Your task to perform on an android device: install app "Gmail" Image 0: 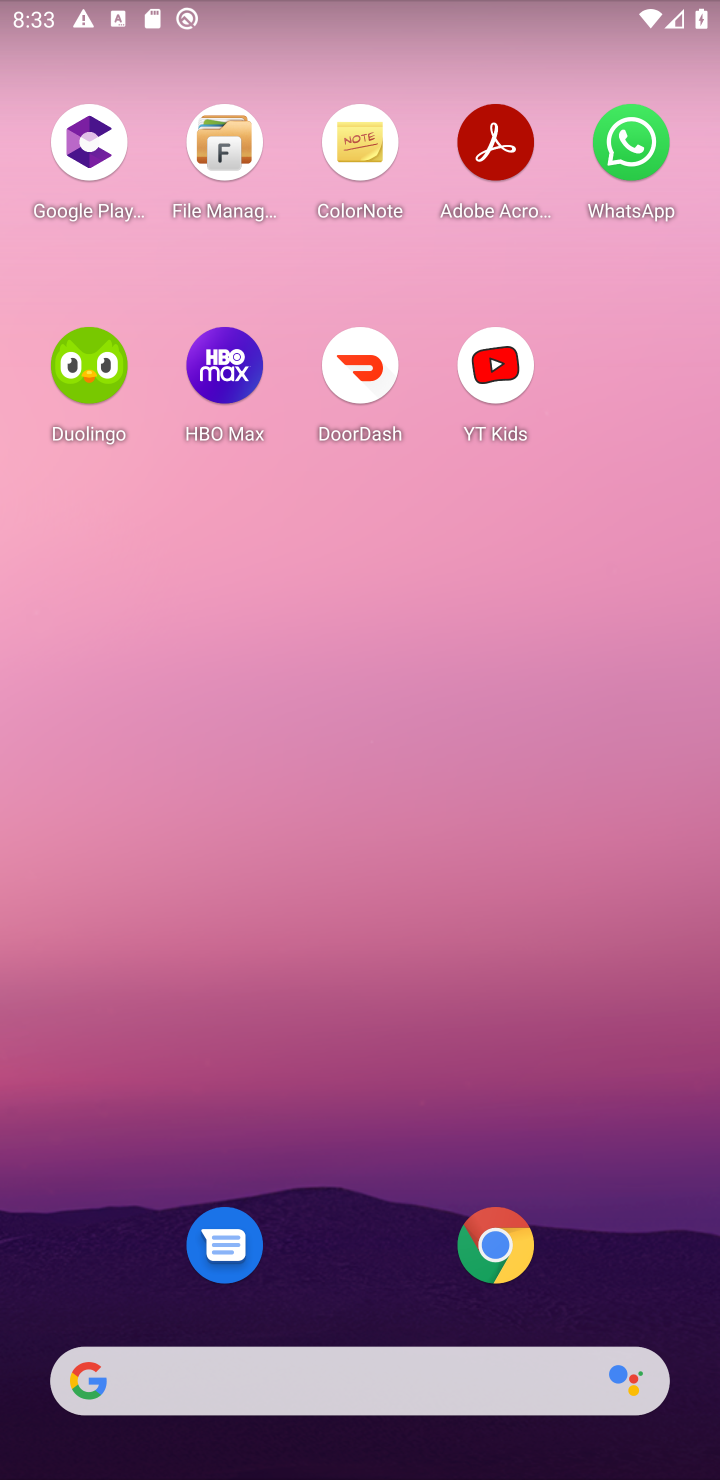
Step 0: drag from (543, 997) to (572, 1)
Your task to perform on an android device: install app "Gmail" Image 1: 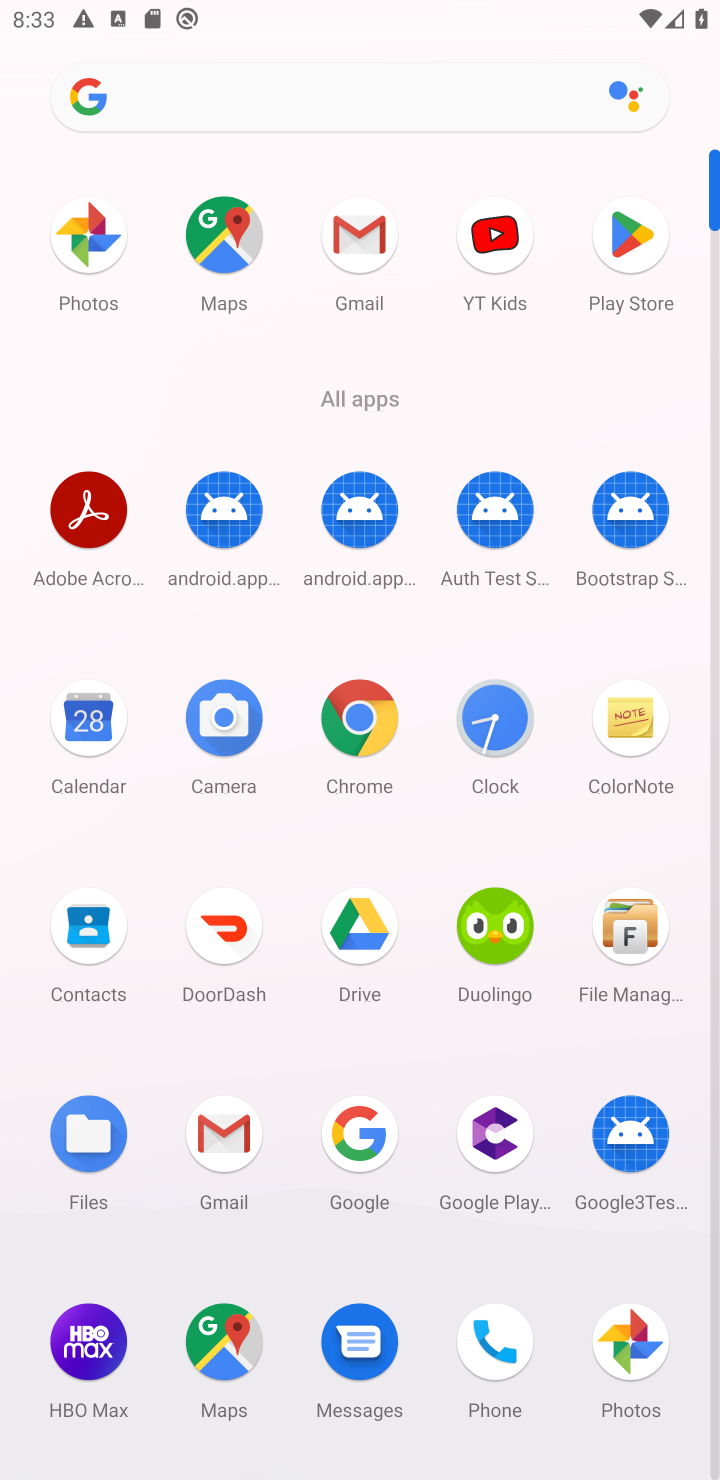
Step 1: click (637, 245)
Your task to perform on an android device: install app "Gmail" Image 2: 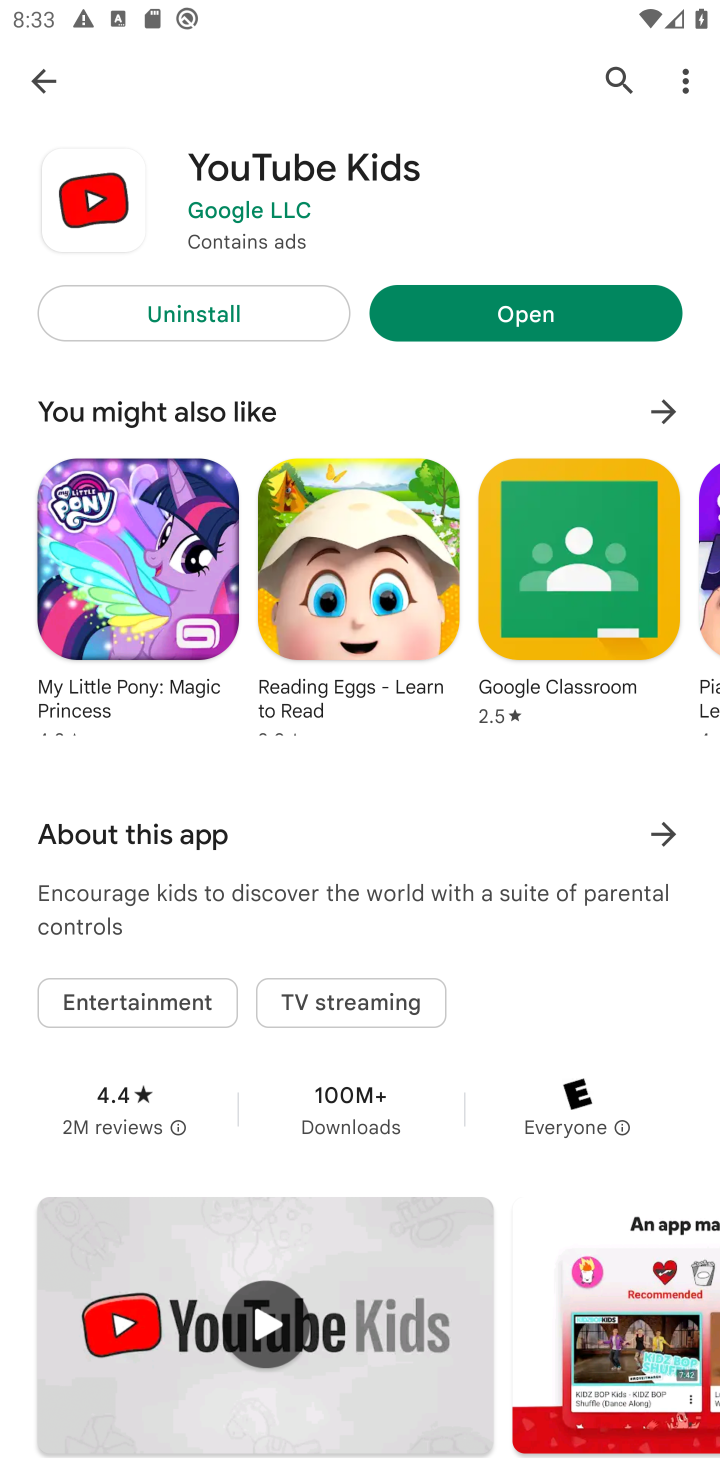
Step 2: click (615, 72)
Your task to perform on an android device: install app "Gmail" Image 3: 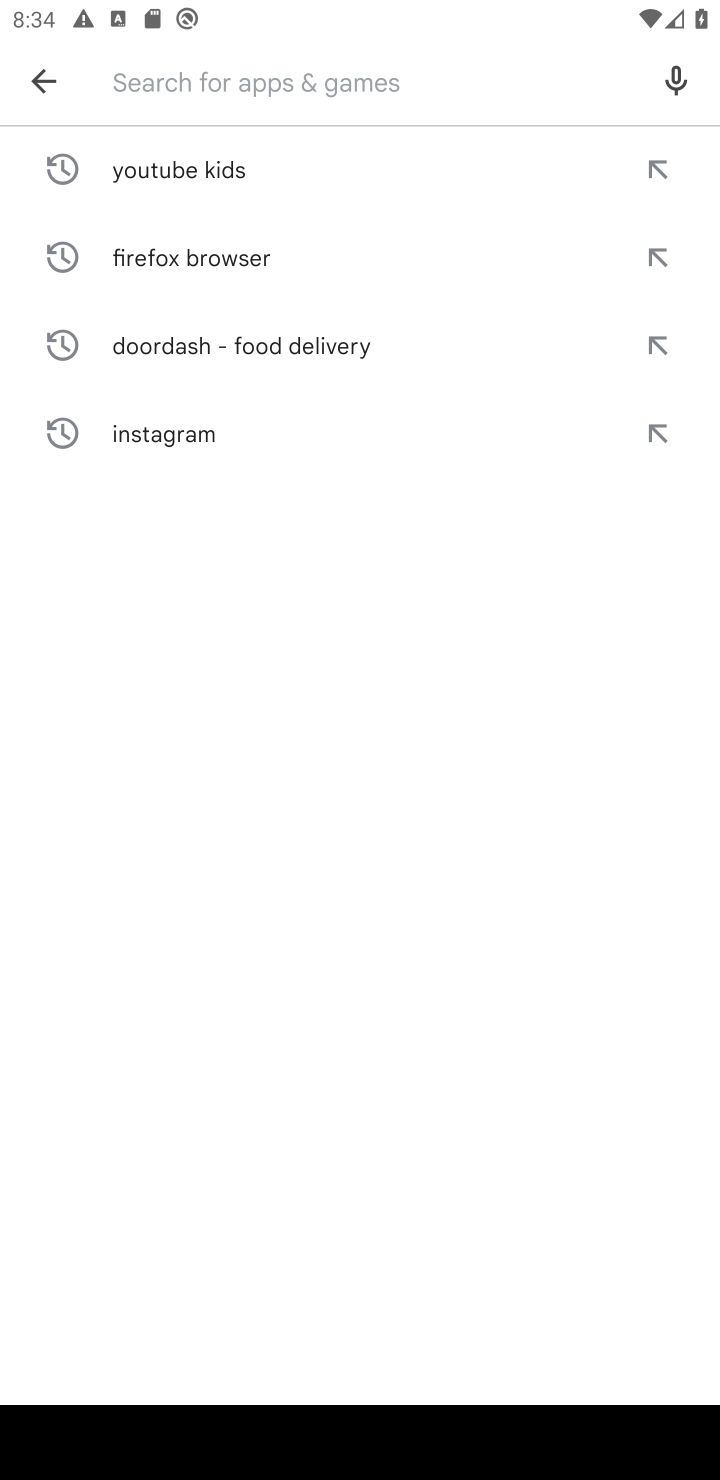
Step 3: type "Gmail"
Your task to perform on an android device: install app "Gmail" Image 4: 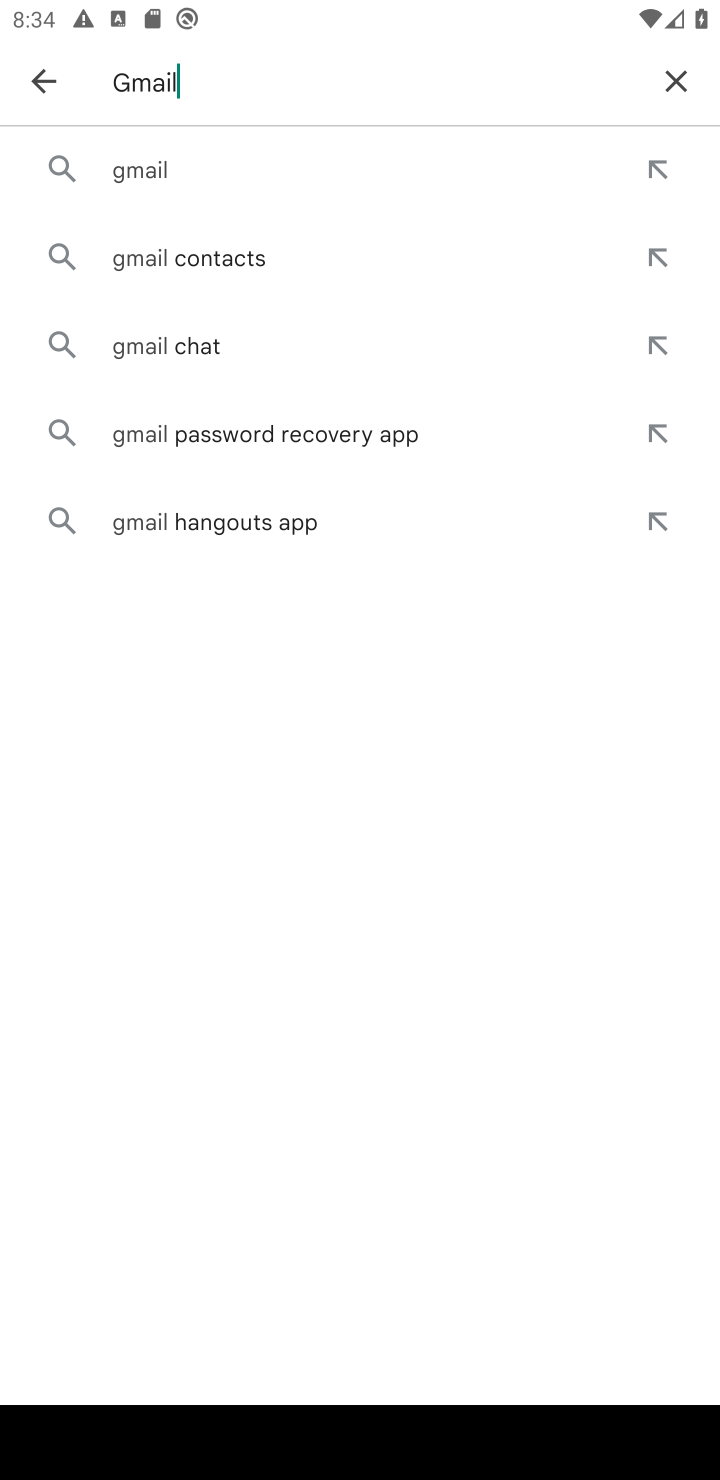
Step 4: click (234, 177)
Your task to perform on an android device: install app "Gmail" Image 5: 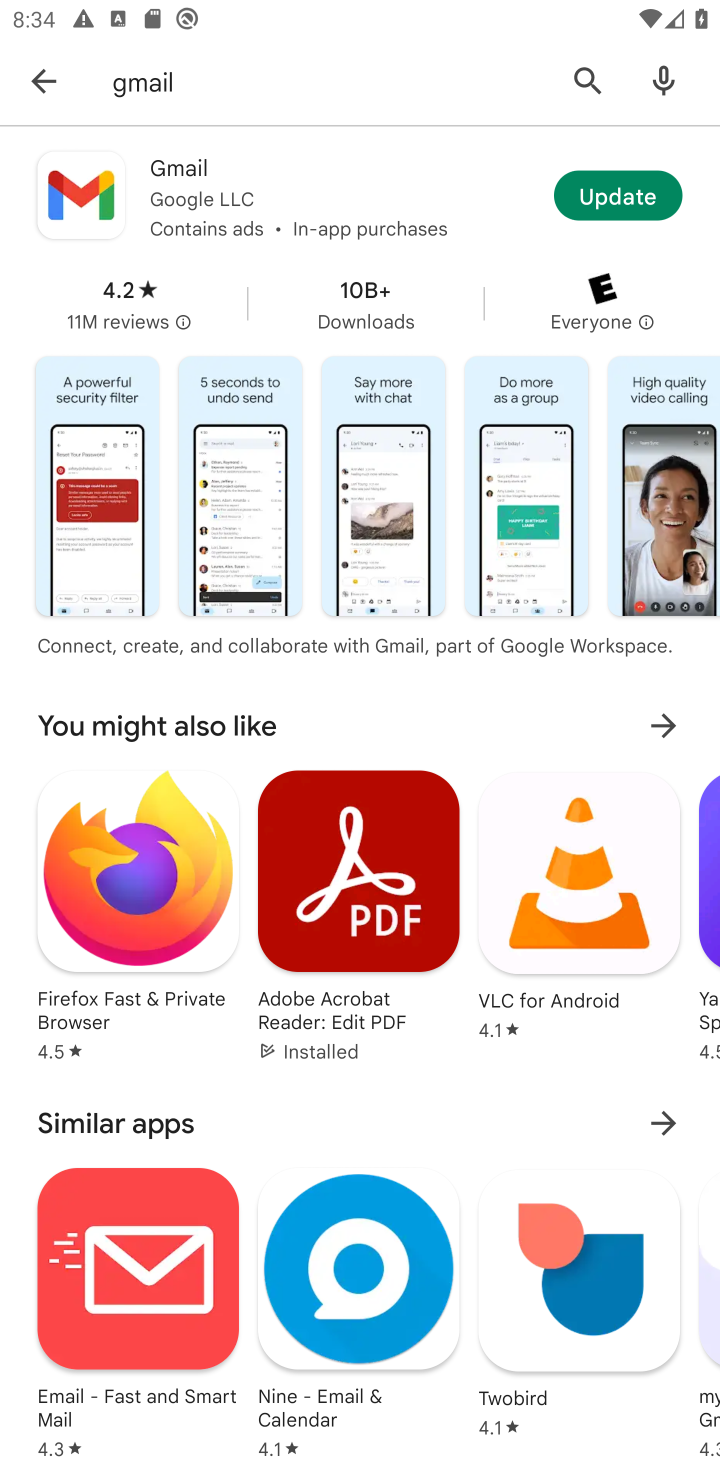
Step 5: click (234, 177)
Your task to perform on an android device: install app "Gmail" Image 6: 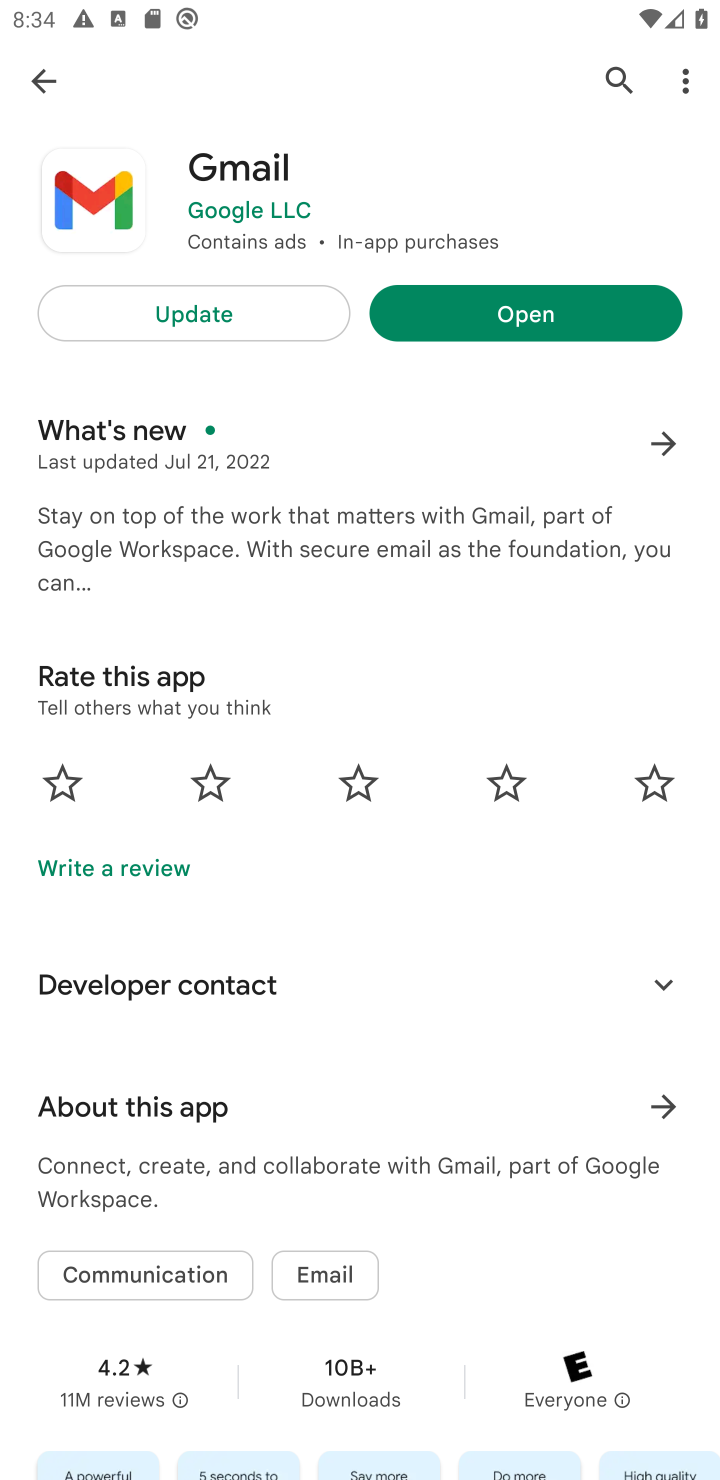
Step 6: task complete